Your task to perform on an android device: toggle show notifications on the lock screen Image 0: 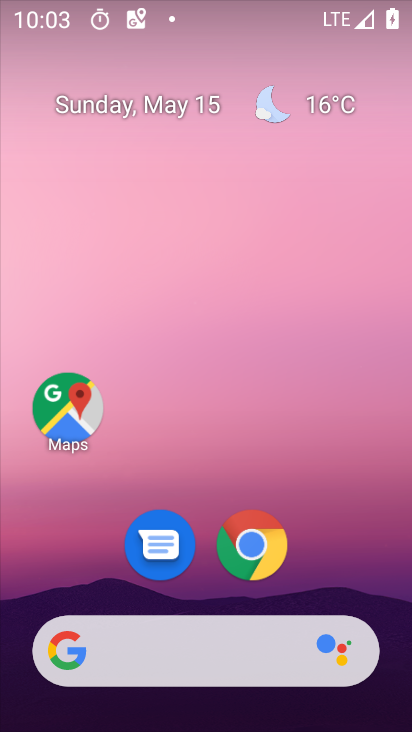
Step 0: drag from (322, 571) to (268, 110)
Your task to perform on an android device: toggle show notifications on the lock screen Image 1: 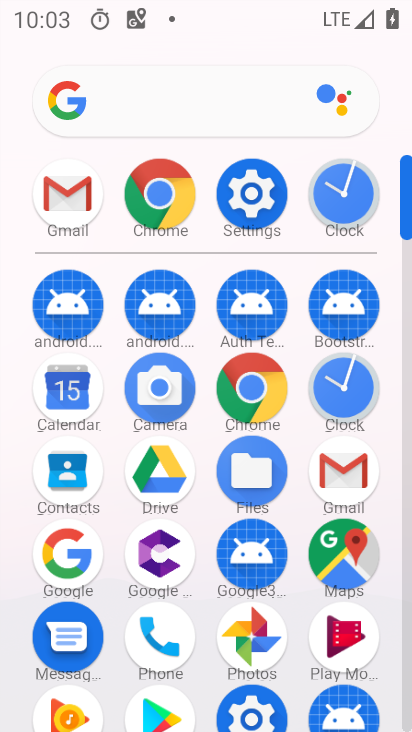
Step 1: click (250, 193)
Your task to perform on an android device: toggle show notifications on the lock screen Image 2: 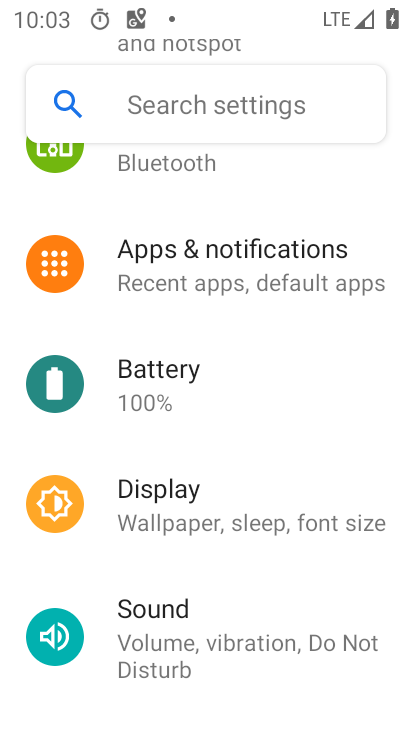
Step 2: click (237, 243)
Your task to perform on an android device: toggle show notifications on the lock screen Image 3: 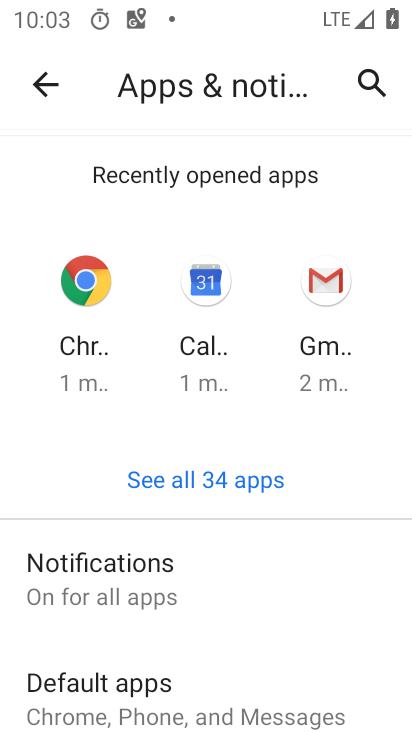
Step 3: click (104, 568)
Your task to perform on an android device: toggle show notifications on the lock screen Image 4: 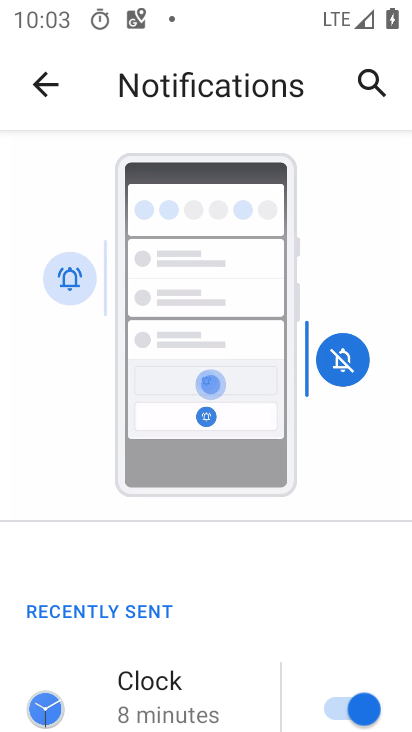
Step 4: drag from (181, 656) to (213, 507)
Your task to perform on an android device: toggle show notifications on the lock screen Image 5: 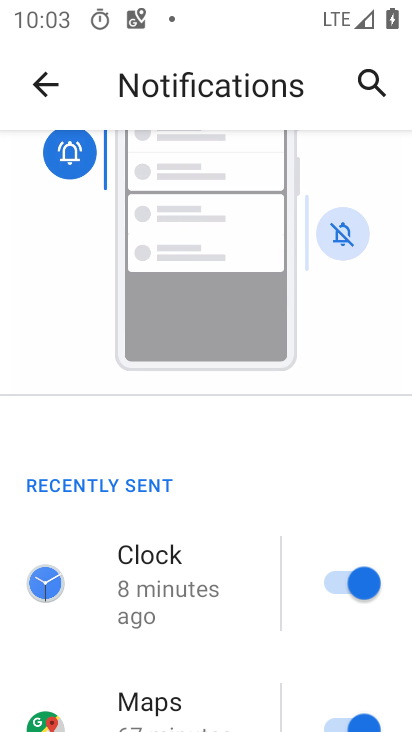
Step 5: drag from (190, 633) to (248, 442)
Your task to perform on an android device: toggle show notifications on the lock screen Image 6: 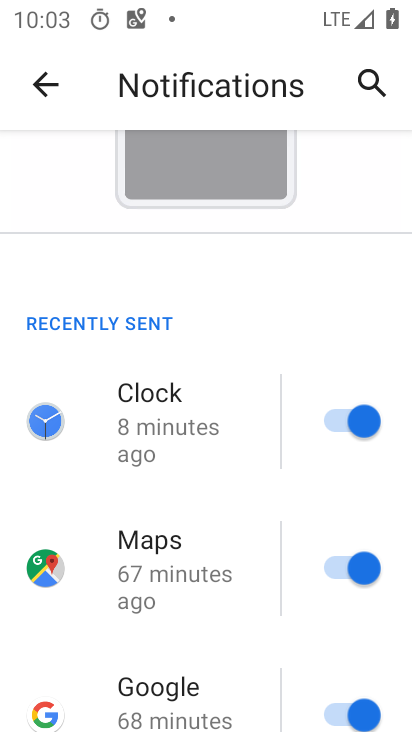
Step 6: drag from (178, 636) to (228, 352)
Your task to perform on an android device: toggle show notifications on the lock screen Image 7: 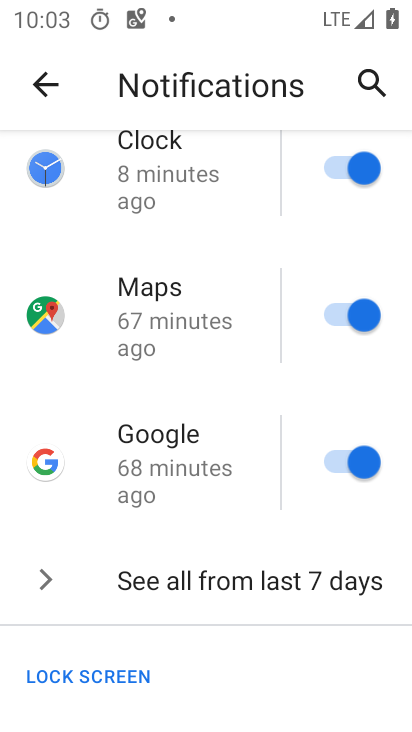
Step 7: drag from (147, 648) to (217, 386)
Your task to perform on an android device: toggle show notifications on the lock screen Image 8: 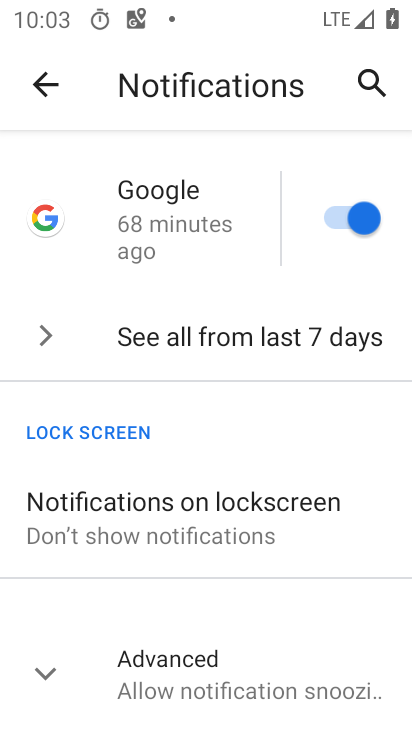
Step 8: click (158, 495)
Your task to perform on an android device: toggle show notifications on the lock screen Image 9: 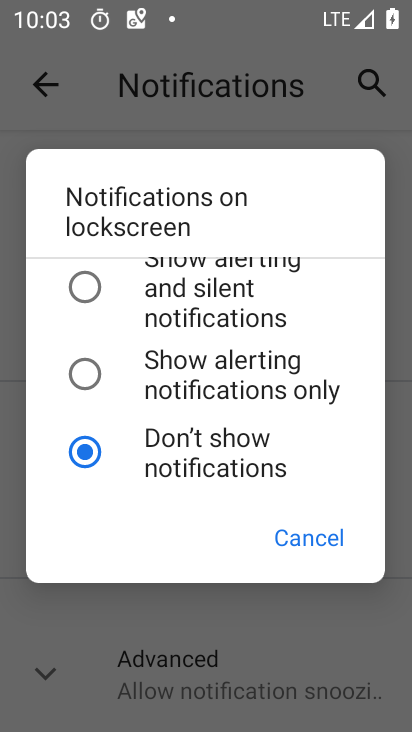
Step 9: click (79, 277)
Your task to perform on an android device: toggle show notifications on the lock screen Image 10: 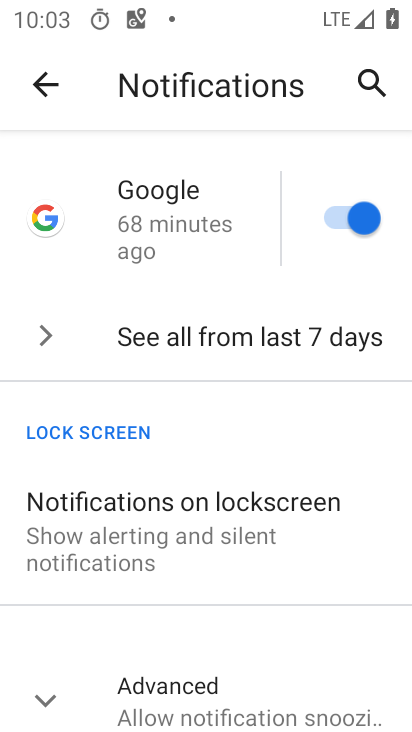
Step 10: task complete